Your task to perform on an android device: Play the latest video from the BBC Image 0: 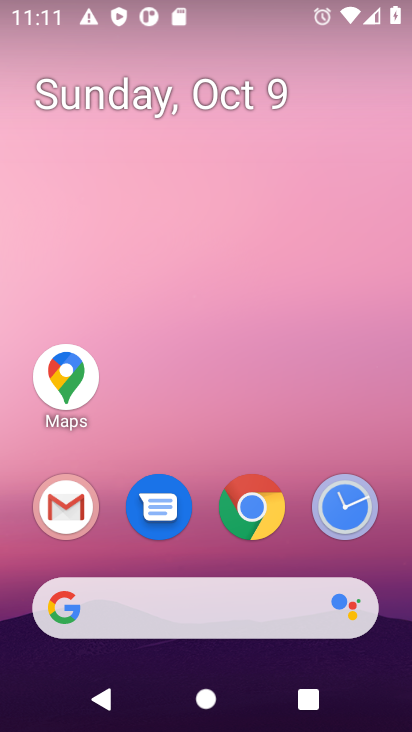
Step 0: press home button
Your task to perform on an android device: Play the latest video from the BBC Image 1: 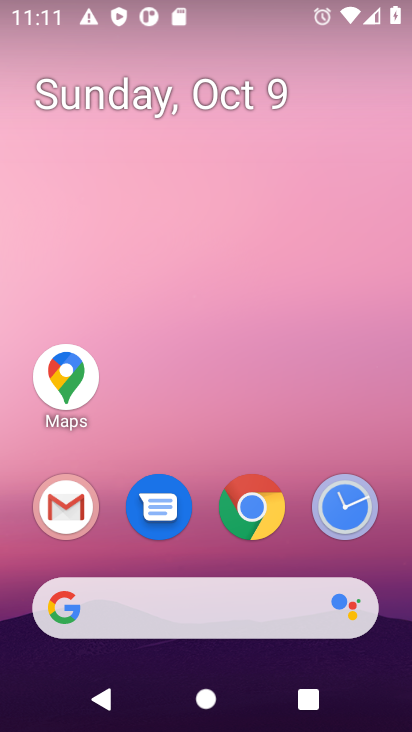
Step 1: click (196, 607)
Your task to perform on an android device: Play the latest video from the BBC Image 2: 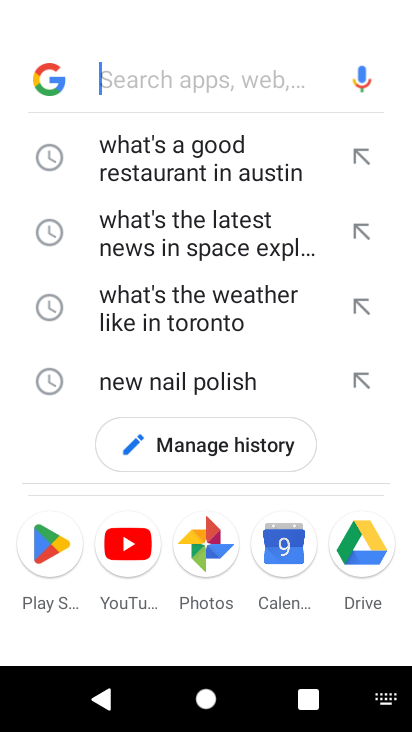
Step 2: type "Play the latest video from the BBC"
Your task to perform on an android device: Play the latest video from the BBC Image 3: 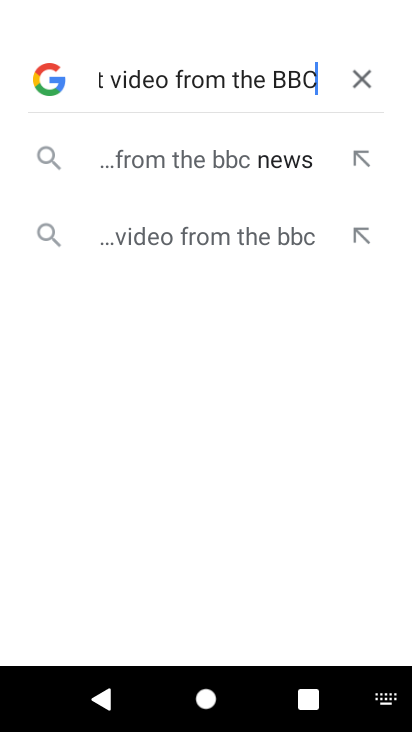
Step 3: press enter
Your task to perform on an android device: Play the latest video from the BBC Image 4: 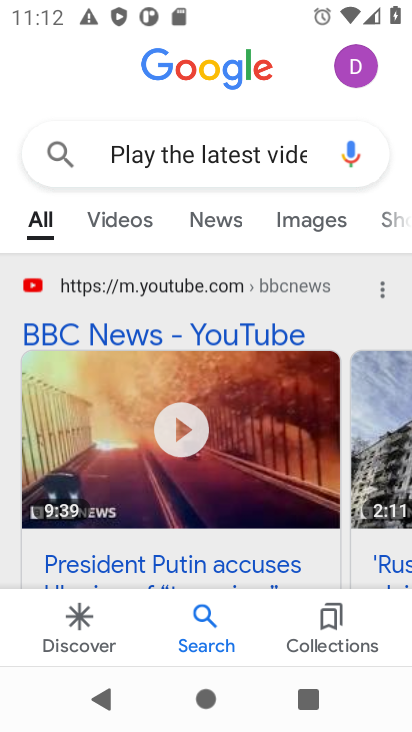
Step 4: drag from (340, 534) to (332, 269)
Your task to perform on an android device: Play the latest video from the BBC Image 5: 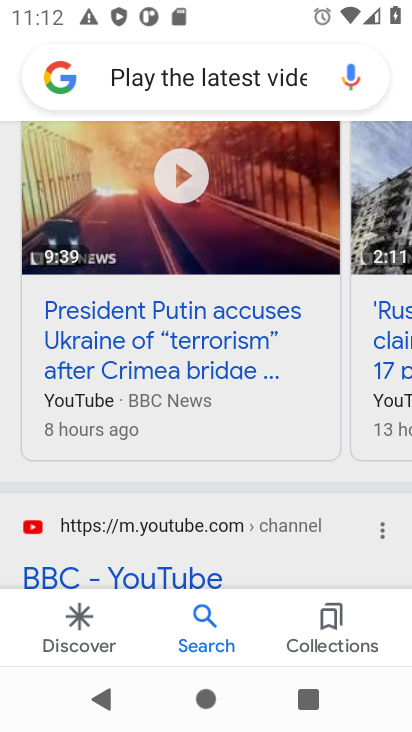
Step 5: click (183, 169)
Your task to perform on an android device: Play the latest video from the BBC Image 6: 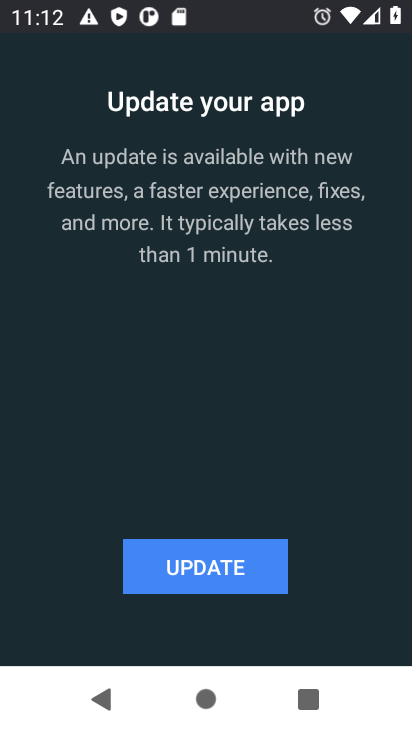
Step 6: click (230, 576)
Your task to perform on an android device: Play the latest video from the BBC Image 7: 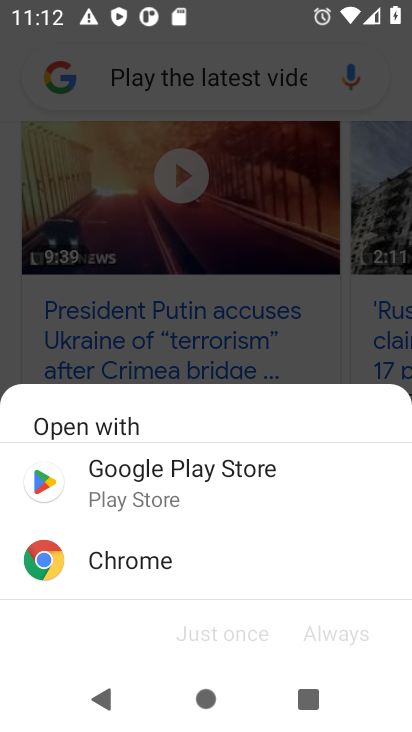
Step 7: click (162, 487)
Your task to perform on an android device: Play the latest video from the BBC Image 8: 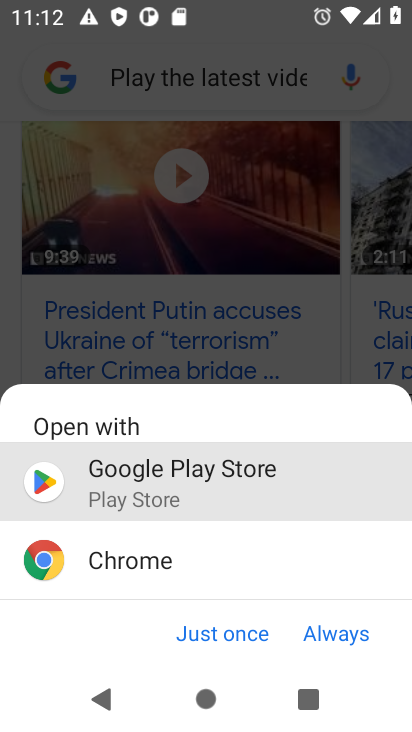
Step 8: click (212, 635)
Your task to perform on an android device: Play the latest video from the BBC Image 9: 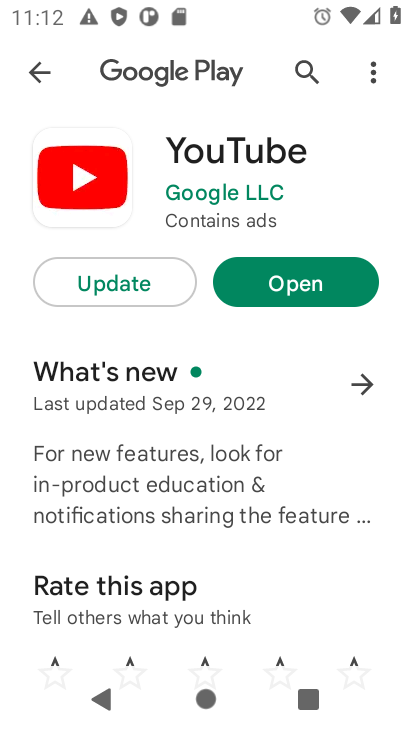
Step 9: click (146, 285)
Your task to perform on an android device: Play the latest video from the BBC Image 10: 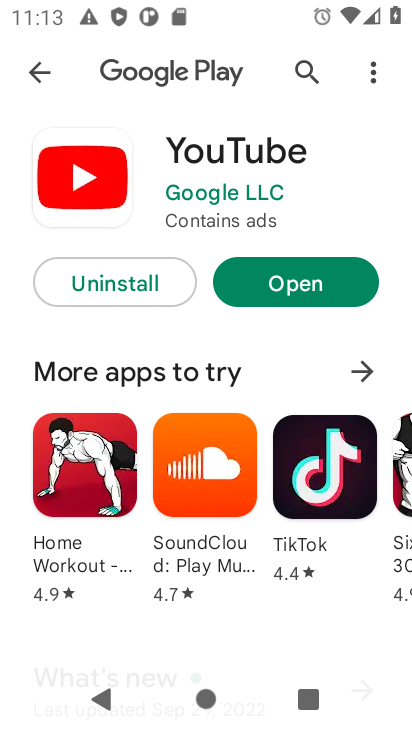
Step 10: click (303, 273)
Your task to perform on an android device: Play the latest video from the BBC Image 11: 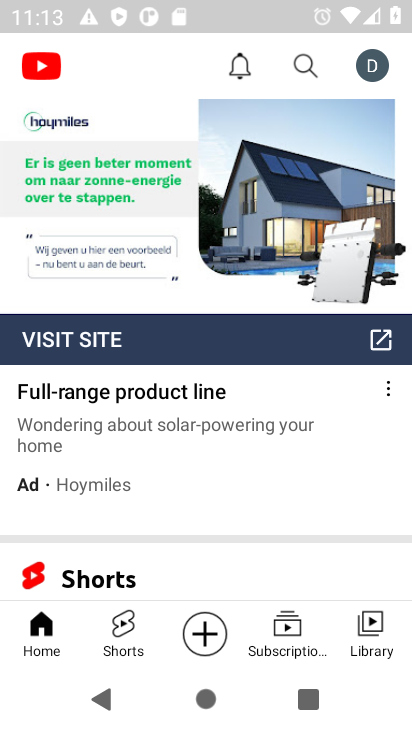
Step 11: task complete